Your task to perform on an android device: What is the news today? Image 0: 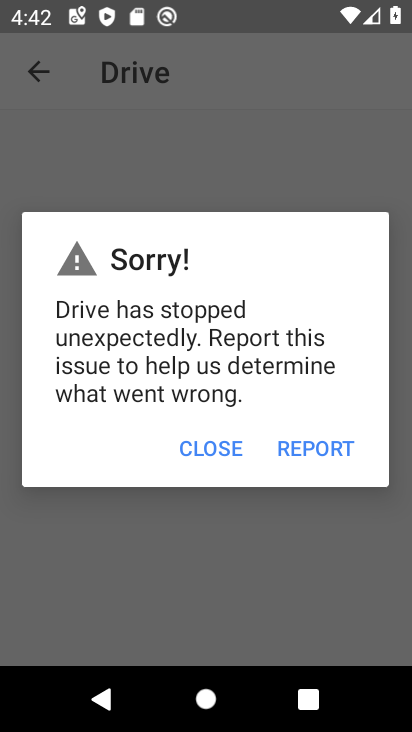
Step 0: press home button
Your task to perform on an android device: What is the news today? Image 1: 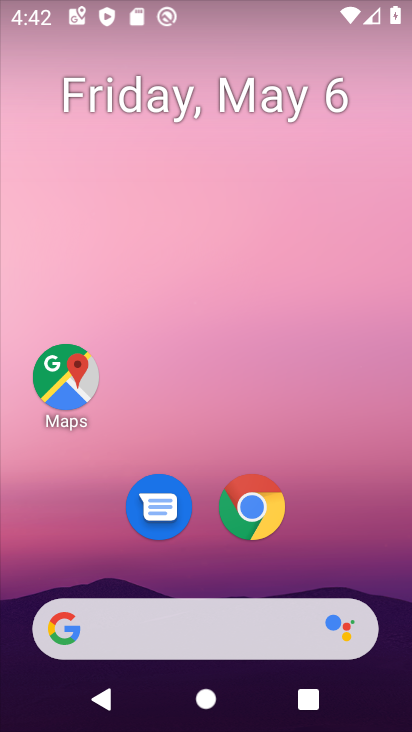
Step 1: click (186, 633)
Your task to perform on an android device: What is the news today? Image 2: 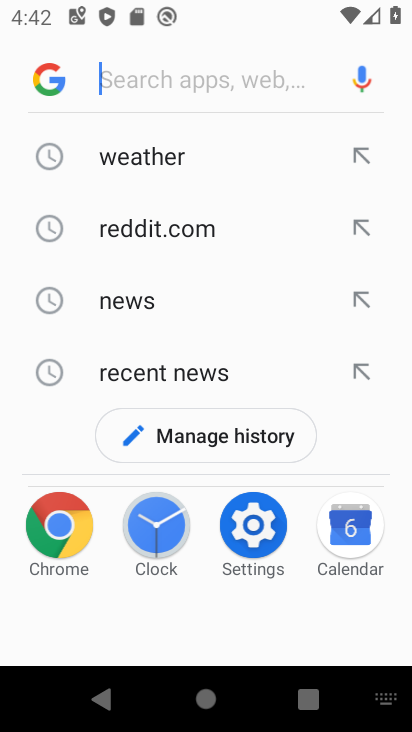
Step 2: click (126, 158)
Your task to perform on an android device: What is the news today? Image 3: 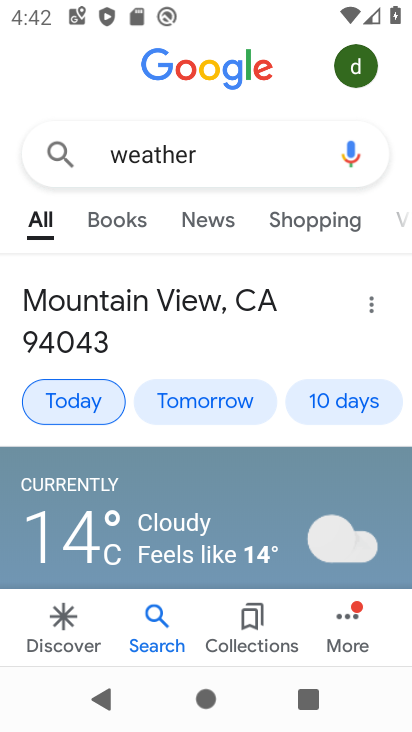
Step 3: task complete